Your task to perform on an android device: turn off smart reply in the gmail app Image 0: 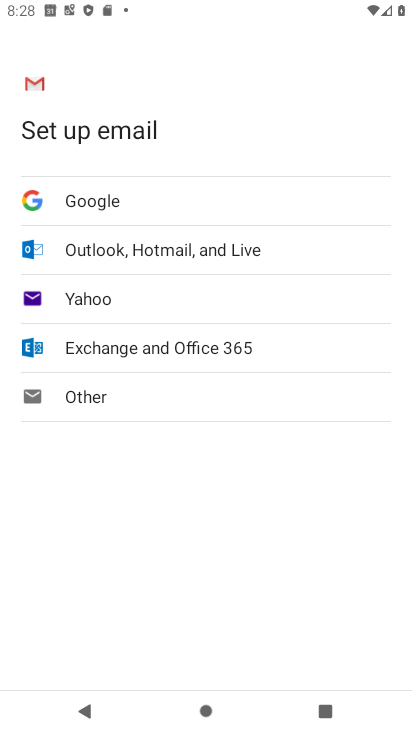
Step 0: press home button
Your task to perform on an android device: turn off smart reply in the gmail app Image 1: 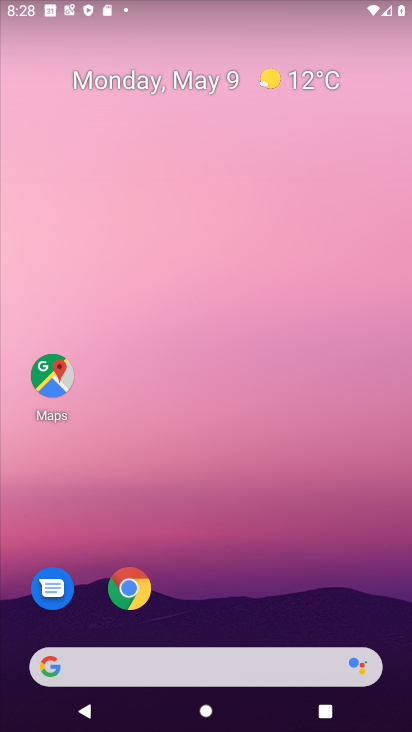
Step 1: drag from (167, 671) to (304, 107)
Your task to perform on an android device: turn off smart reply in the gmail app Image 2: 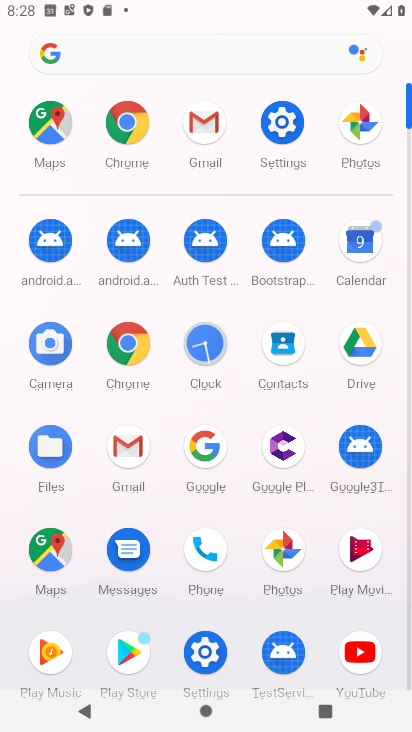
Step 2: click (205, 135)
Your task to perform on an android device: turn off smart reply in the gmail app Image 3: 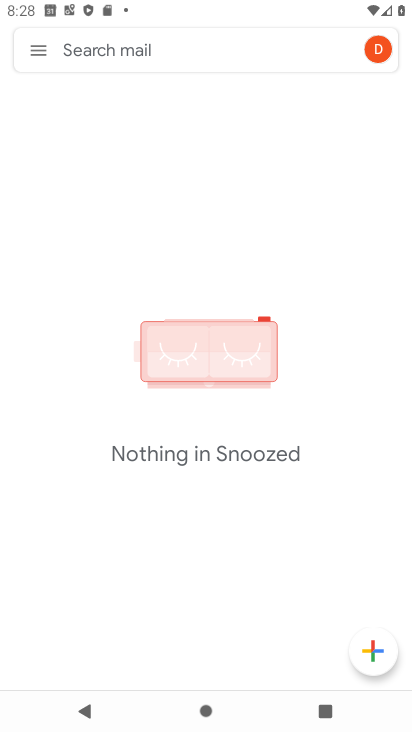
Step 3: click (38, 56)
Your task to perform on an android device: turn off smart reply in the gmail app Image 4: 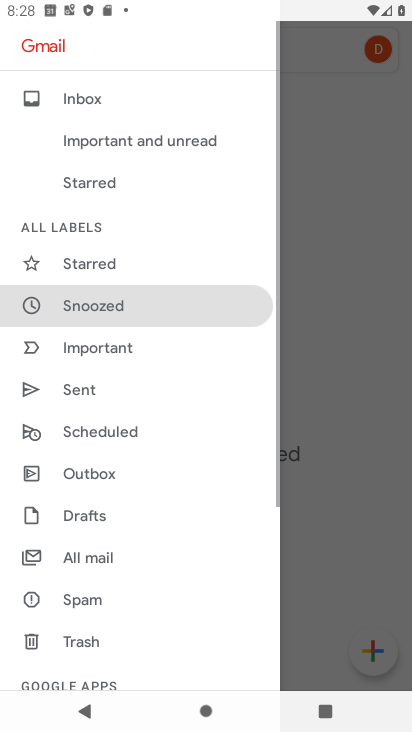
Step 4: drag from (134, 635) to (180, 209)
Your task to perform on an android device: turn off smart reply in the gmail app Image 5: 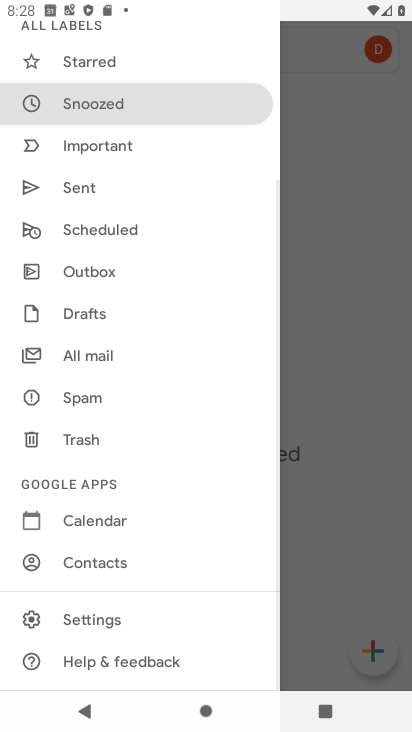
Step 5: click (109, 616)
Your task to perform on an android device: turn off smart reply in the gmail app Image 6: 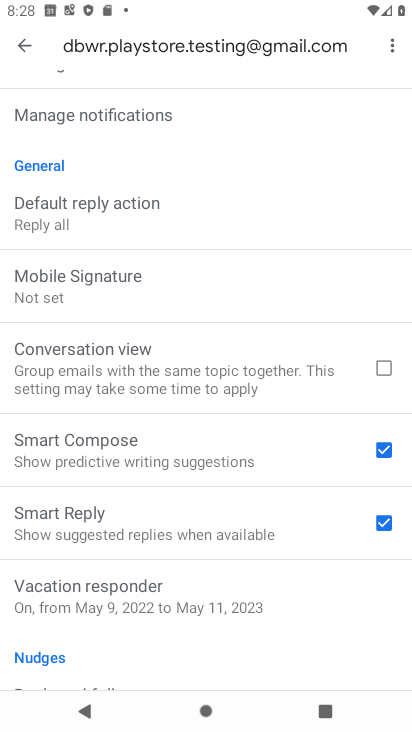
Step 6: click (381, 523)
Your task to perform on an android device: turn off smart reply in the gmail app Image 7: 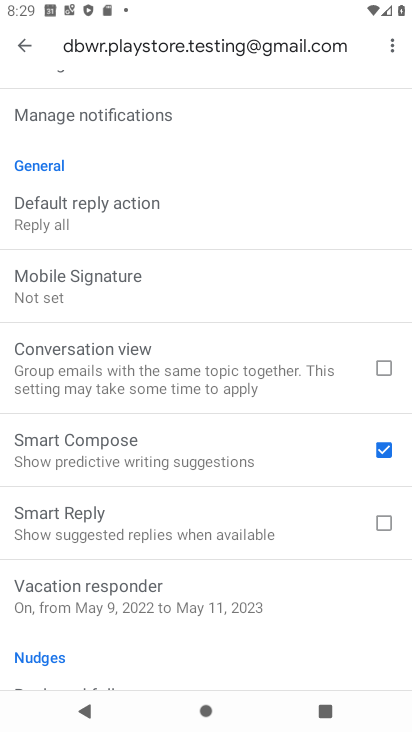
Step 7: task complete